Your task to perform on an android device: Open settings on Google Maps Image 0: 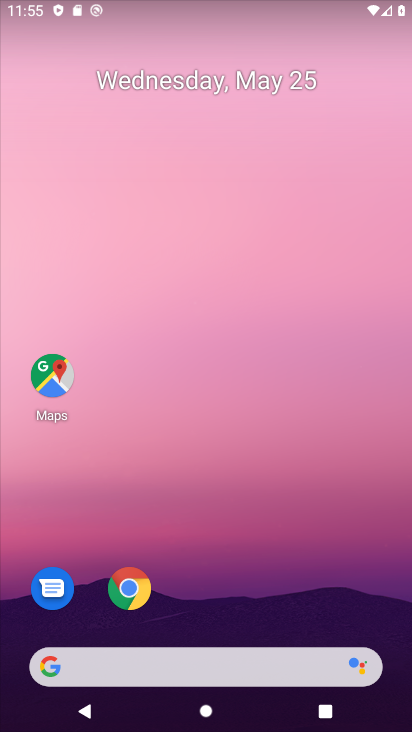
Step 0: click (46, 382)
Your task to perform on an android device: Open settings on Google Maps Image 1: 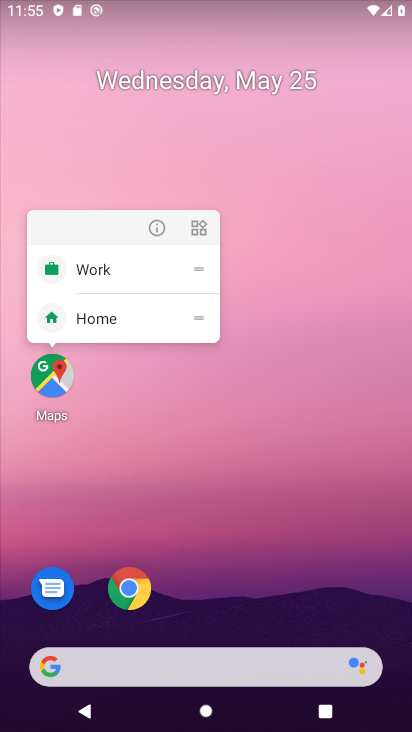
Step 1: click (46, 383)
Your task to perform on an android device: Open settings on Google Maps Image 2: 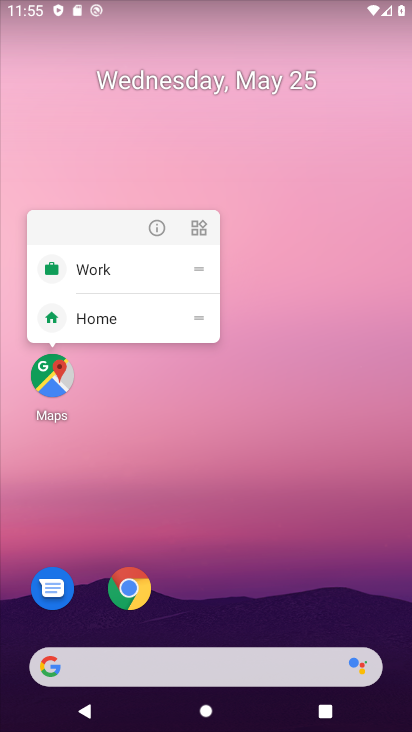
Step 2: click (46, 383)
Your task to perform on an android device: Open settings on Google Maps Image 3: 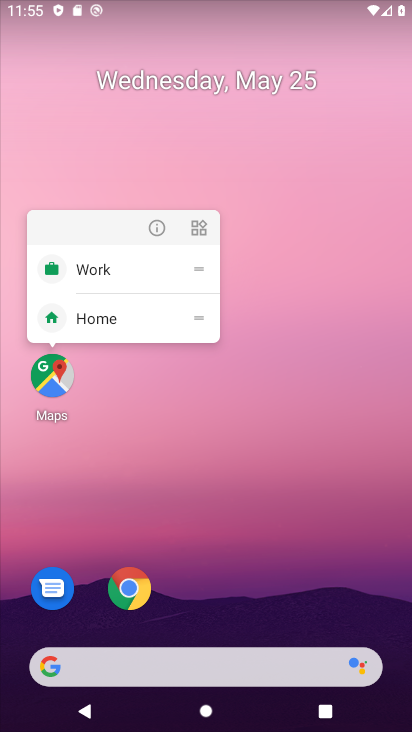
Step 3: click (48, 386)
Your task to perform on an android device: Open settings on Google Maps Image 4: 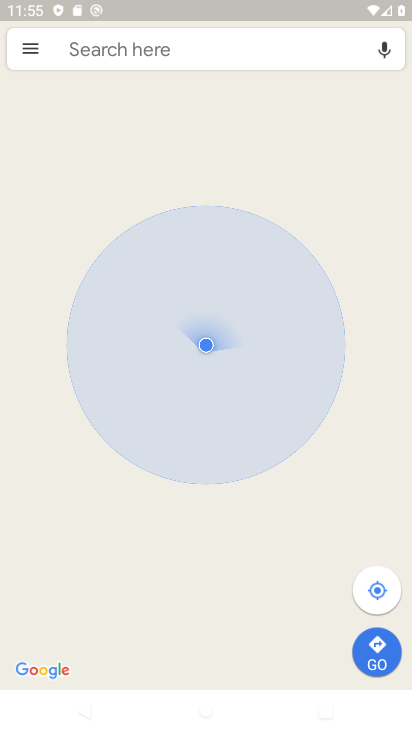
Step 4: click (30, 49)
Your task to perform on an android device: Open settings on Google Maps Image 5: 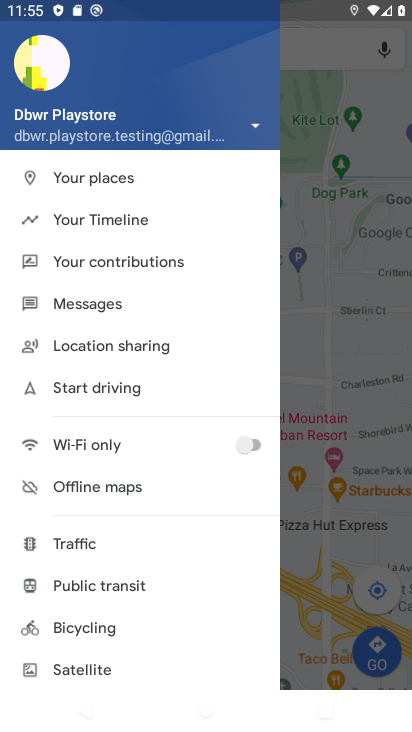
Step 5: drag from (122, 573) to (224, 230)
Your task to perform on an android device: Open settings on Google Maps Image 6: 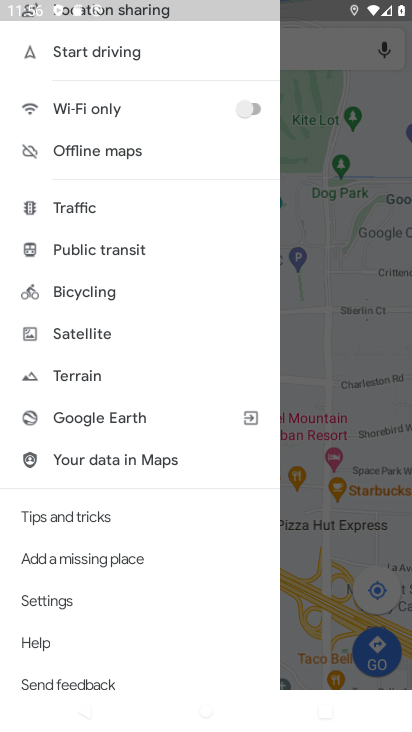
Step 6: click (95, 609)
Your task to perform on an android device: Open settings on Google Maps Image 7: 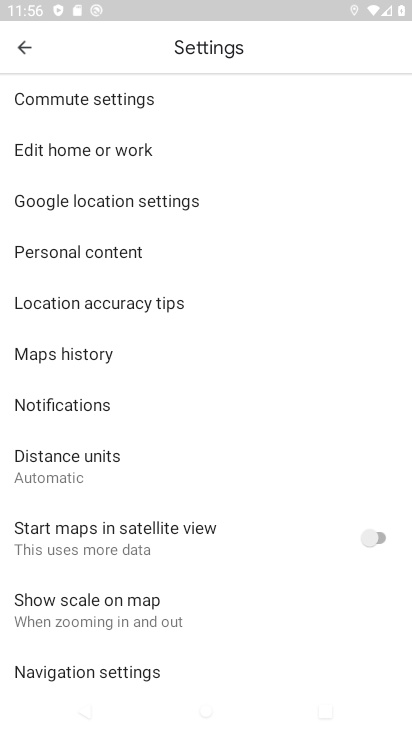
Step 7: task complete